Your task to perform on an android device: turn vacation reply on in the gmail app Image 0: 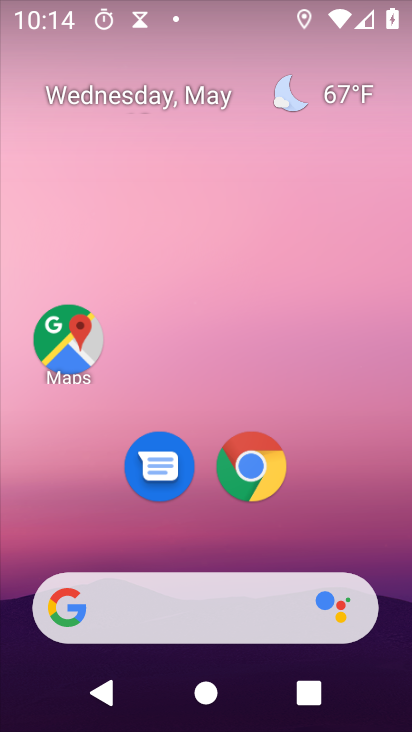
Step 0: drag from (302, 520) to (128, 151)
Your task to perform on an android device: turn vacation reply on in the gmail app Image 1: 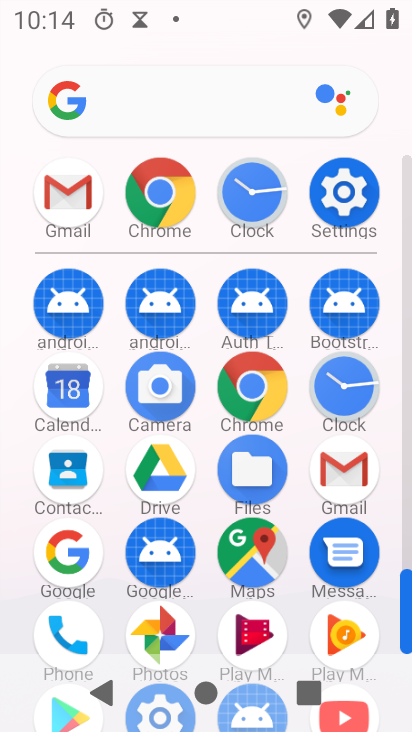
Step 1: click (72, 215)
Your task to perform on an android device: turn vacation reply on in the gmail app Image 2: 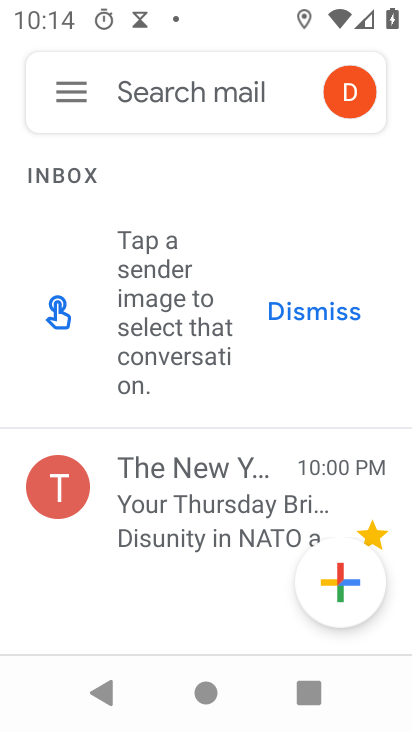
Step 2: click (78, 89)
Your task to perform on an android device: turn vacation reply on in the gmail app Image 3: 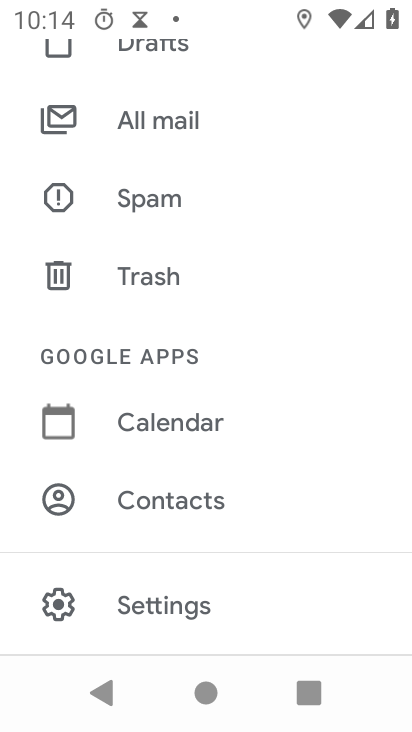
Step 3: click (207, 620)
Your task to perform on an android device: turn vacation reply on in the gmail app Image 4: 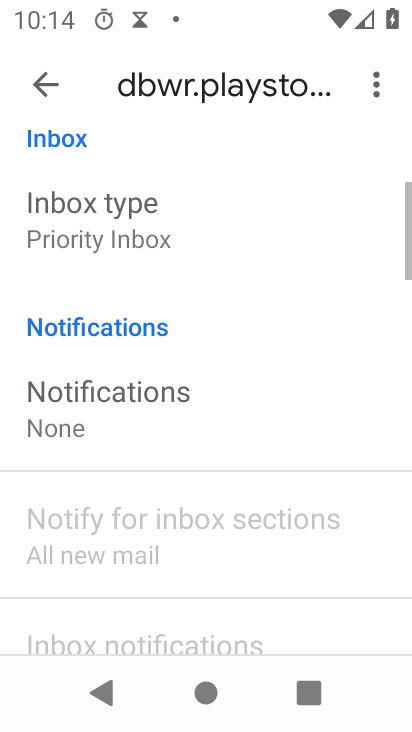
Step 4: drag from (220, 582) to (65, 248)
Your task to perform on an android device: turn vacation reply on in the gmail app Image 5: 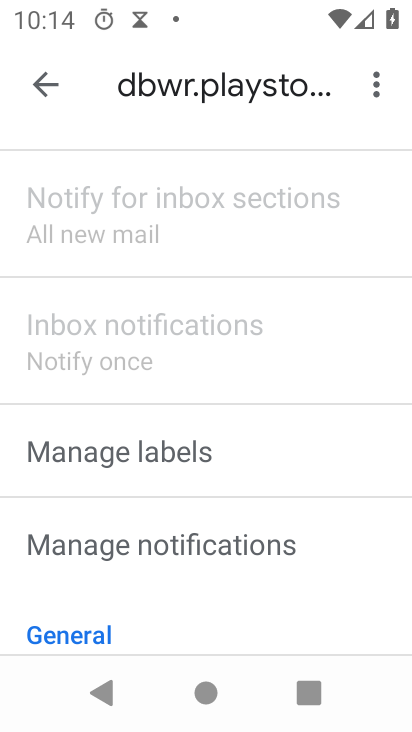
Step 5: drag from (302, 585) to (161, 143)
Your task to perform on an android device: turn vacation reply on in the gmail app Image 6: 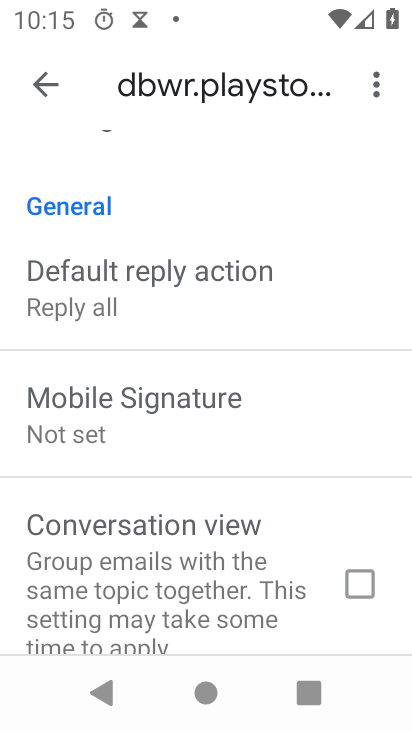
Step 6: drag from (295, 629) to (195, 319)
Your task to perform on an android device: turn vacation reply on in the gmail app Image 7: 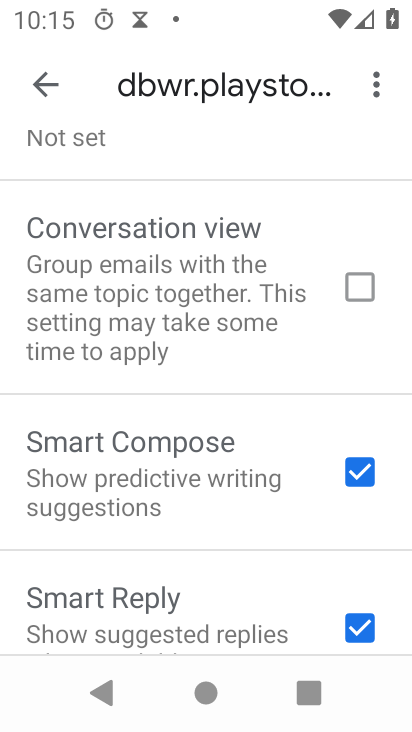
Step 7: drag from (228, 541) to (102, 291)
Your task to perform on an android device: turn vacation reply on in the gmail app Image 8: 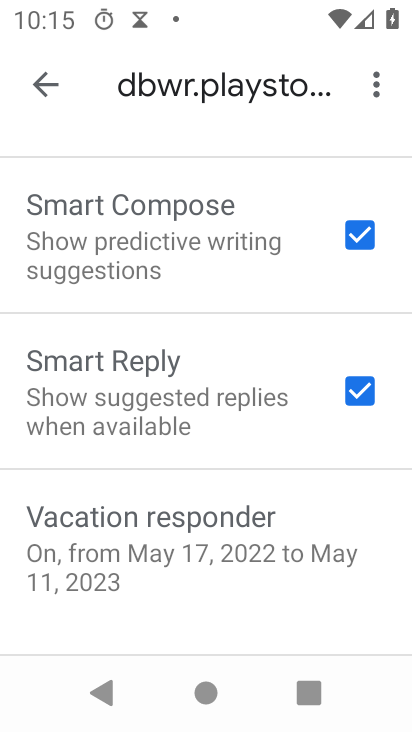
Step 8: click (270, 567)
Your task to perform on an android device: turn vacation reply on in the gmail app Image 9: 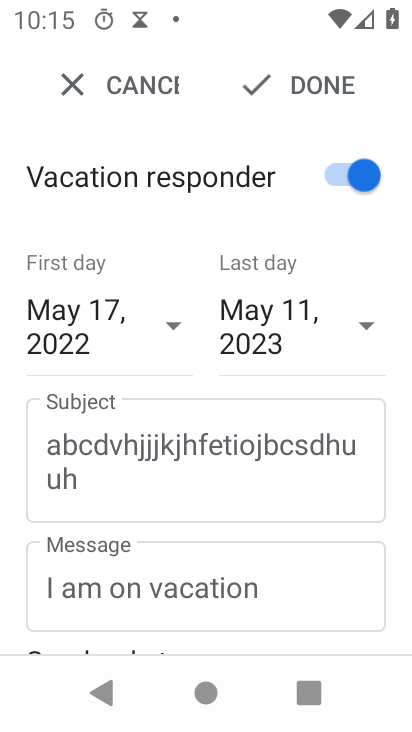
Step 9: task complete